Your task to perform on an android device: Open internet settings Image 0: 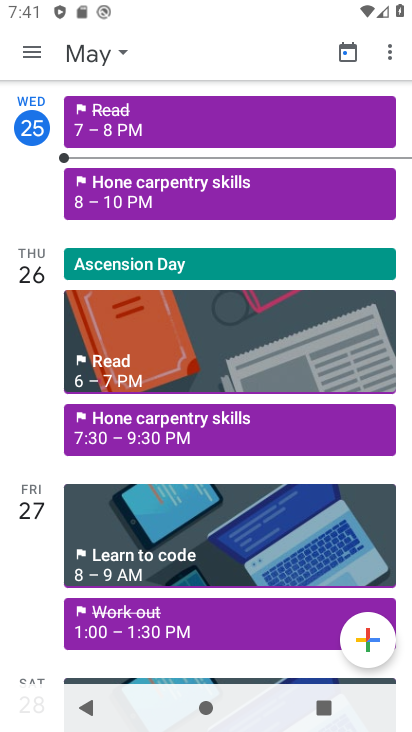
Step 0: press home button
Your task to perform on an android device: Open internet settings Image 1: 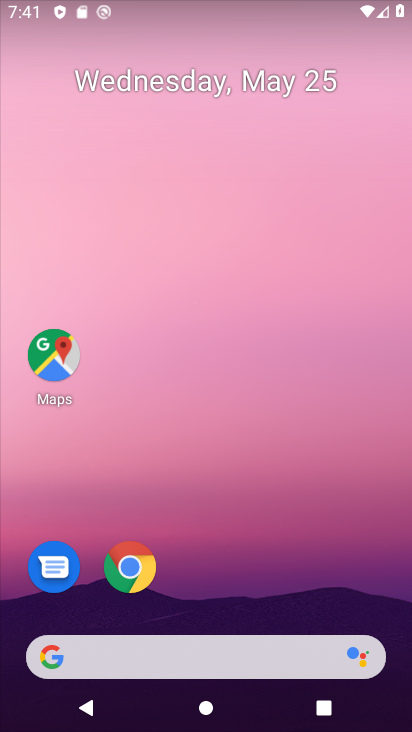
Step 1: drag from (211, 595) to (236, 2)
Your task to perform on an android device: Open internet settings Image 2: 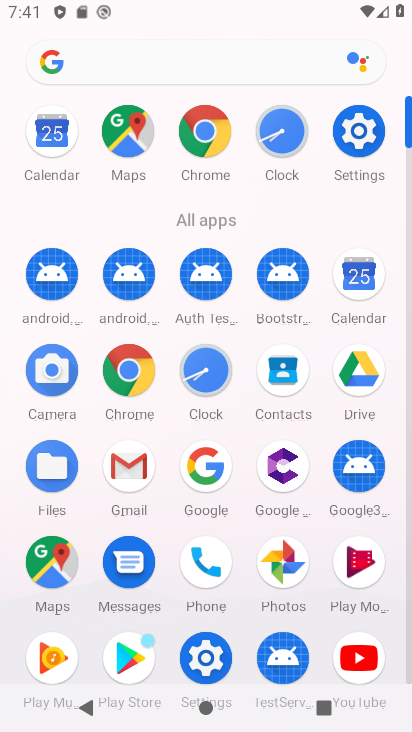
Step 2: click (367, 158)
Your task to perform on an android device: Open internet settings Image 3: 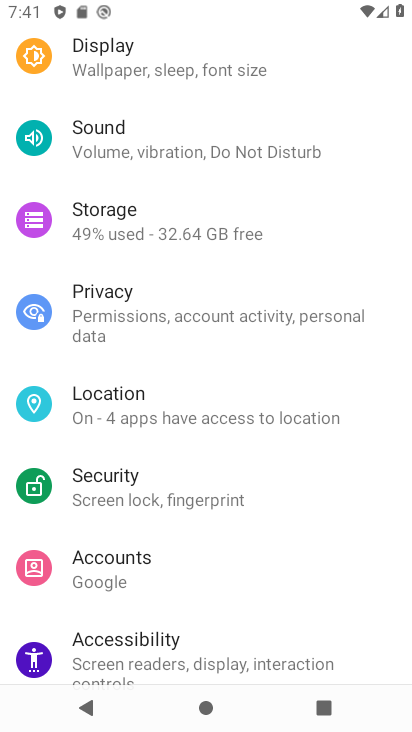
Step 3: drag from (285, 166) to (285, 704)
Your task to perform on an android device: Open internet settings Image 4: 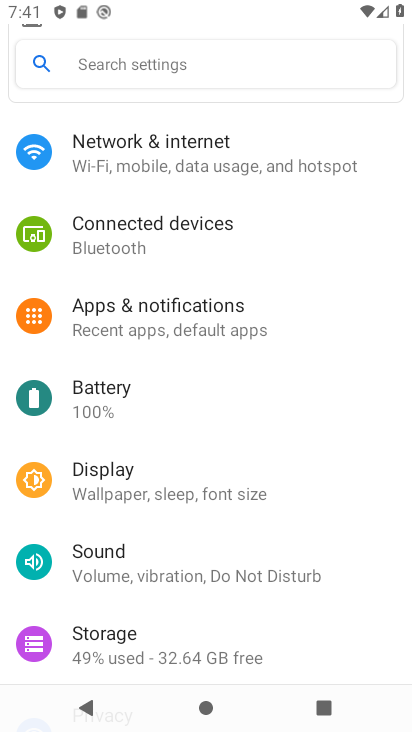
Step 4: click (221, 173)
Your task to perform on an android device: Open internet settings Image 5: 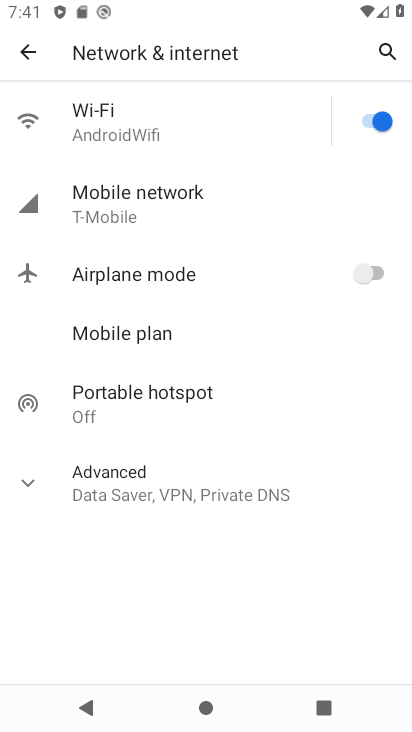
Step 5: task complete